Your task to perform on an android device: Search for vegetarian restaurants on Maps Image 0: 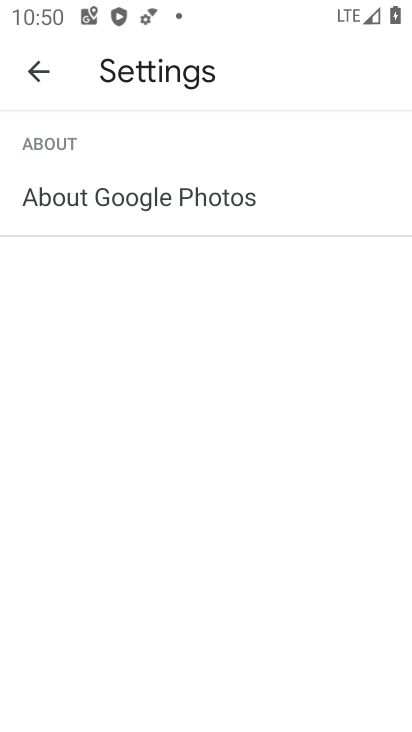
Step 0: press home button
Your task to perform on an android device: Search for vegetarian restaurants on Maps Image 1: 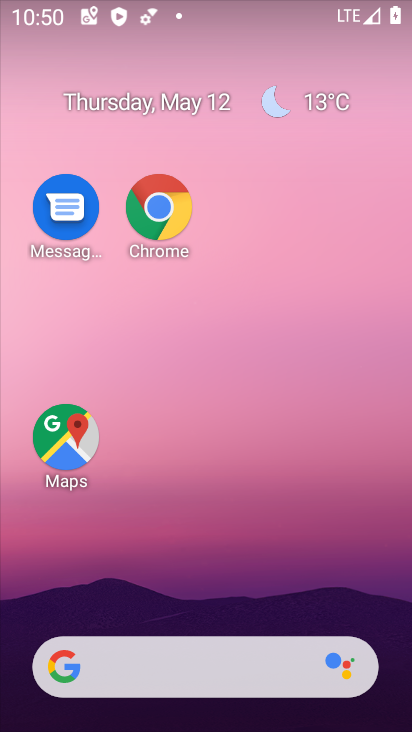
Step 1: drag from (208, 620) to (227, 67)
Your task to perform on an android device: Search for vegetarian restaurants on Maps Image 2: 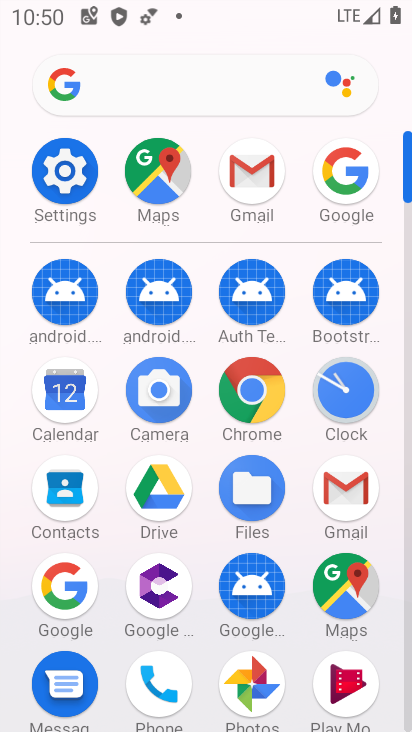
Step 2: click (324, 571)
Your task to perform on an android device: Search for vegetarian restaurants on Maps Image 3: 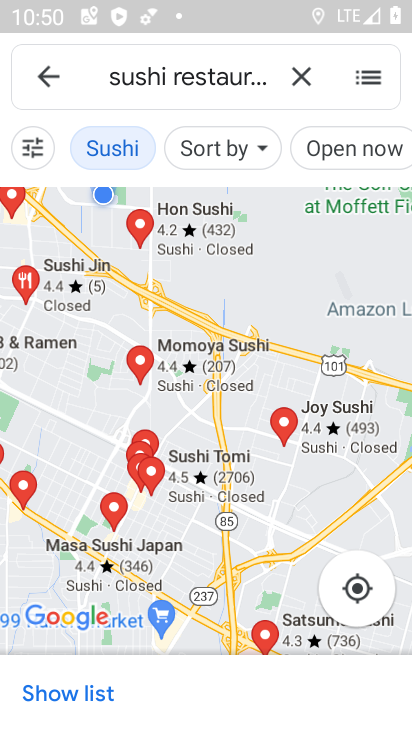
Step 3: click (307, 70)
Your task to perform on an android device: Search for vegetarian restaurants on Maps Image 4: 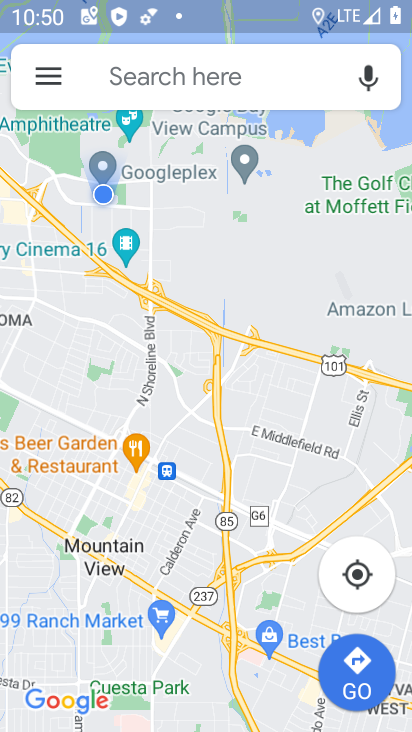
Step 4: click (139, 85)
Your task to perform on an android device: Search for vegetarian restaurants on Maps Image 5: 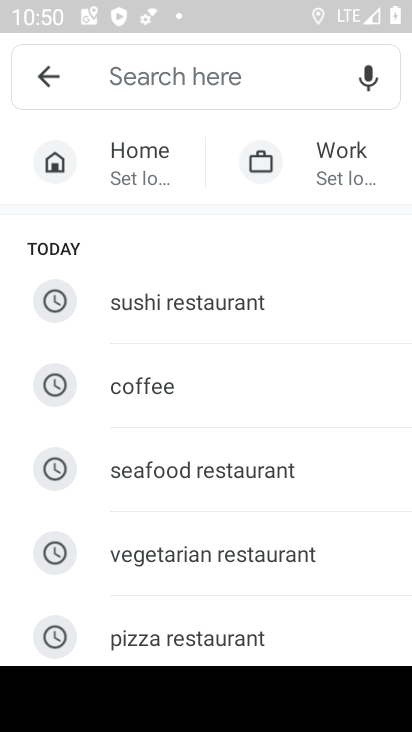
Step 5: click (150, 581)
Your task to perform on an android device: Search for vegetarian restaurants on Maps Image 6: 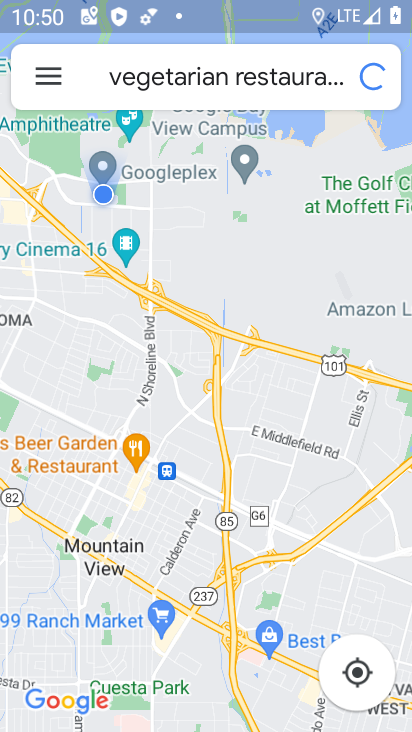
Step 6: task complete